Your task to perform on an android device: Open sound settings Image 0: 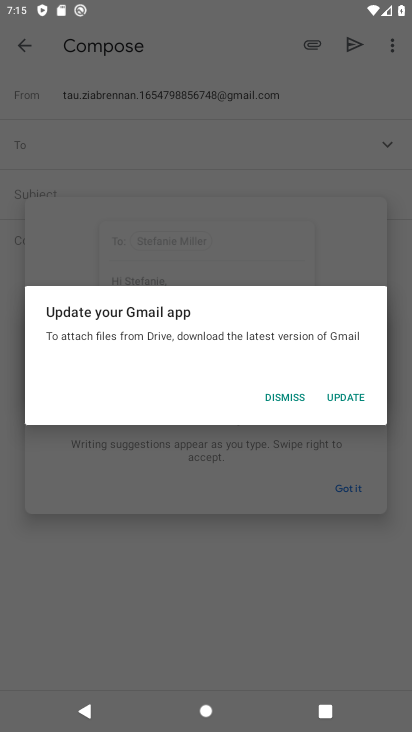
Step 0: press home button
Your task to perform on an android device: Open sound settings Image 1: 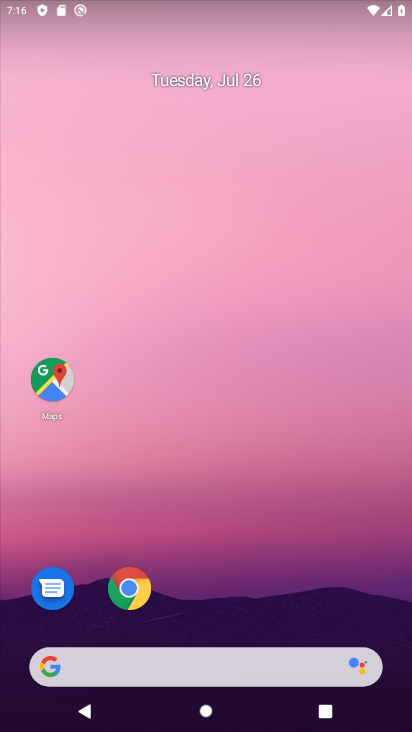
Step 1: drag from (222, 555) to (202, 440)
Your task to perform on an android device: Open sound settings Image 2: 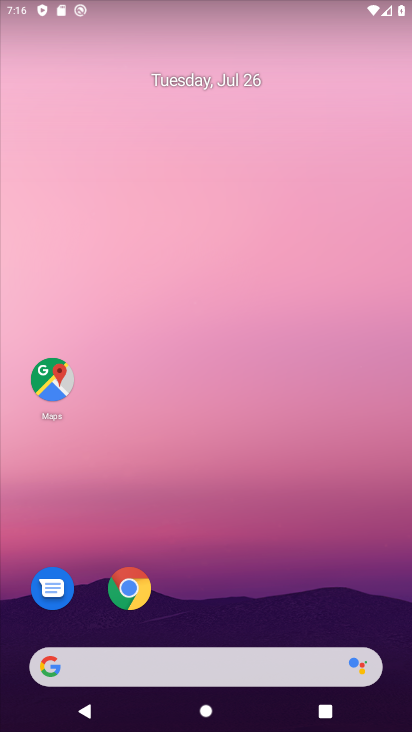
Step 2: drag from (268, 563) to (257, 0)
Your task to perform on an android device: Open sound settings Image 3: 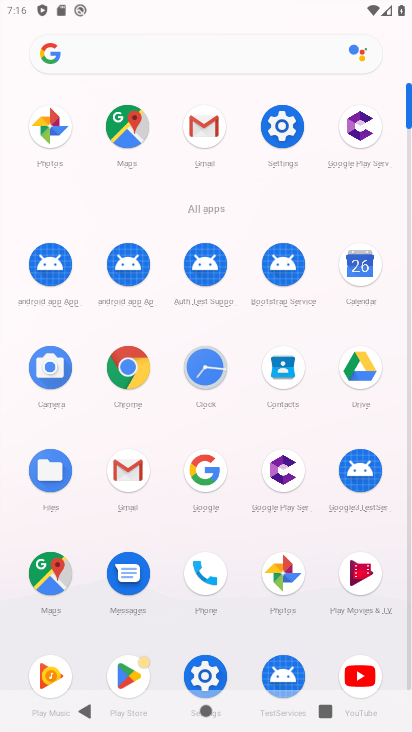
Step 3: click (282, 133)
Your task to perform on an android device: Open sound settings Image 4: 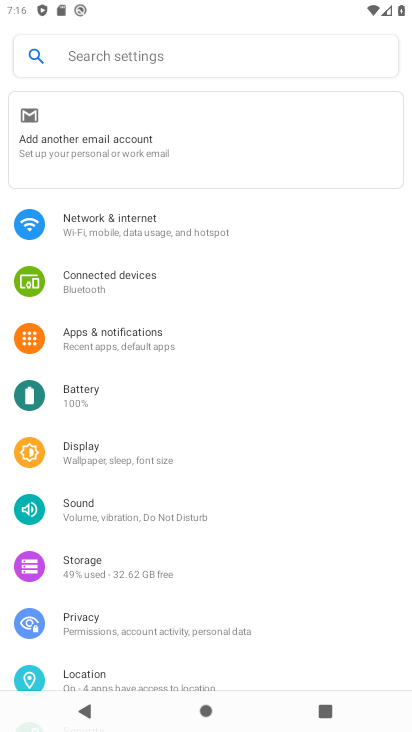
Step 4: click (83, 513)
Your task to perform on an android device: Open sound settings Image 5: 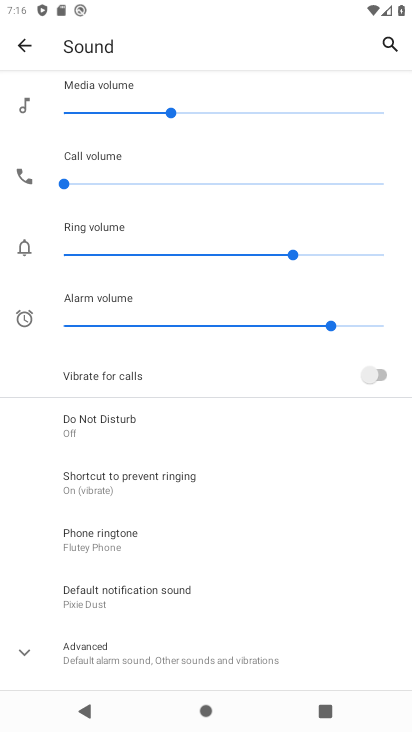
Step 5: task complete